Your task to perform on an android device: Open wifi settings Image 0: 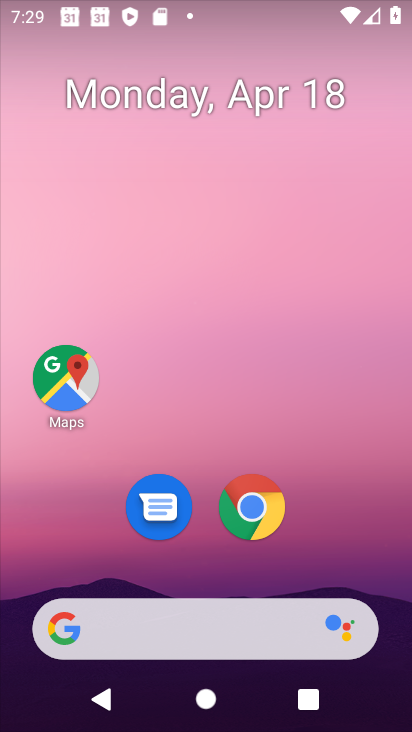
Step 0: drag from (5, 514) to (38, 475)
Your task to perform on an android device: Open wifi settings Image 1: 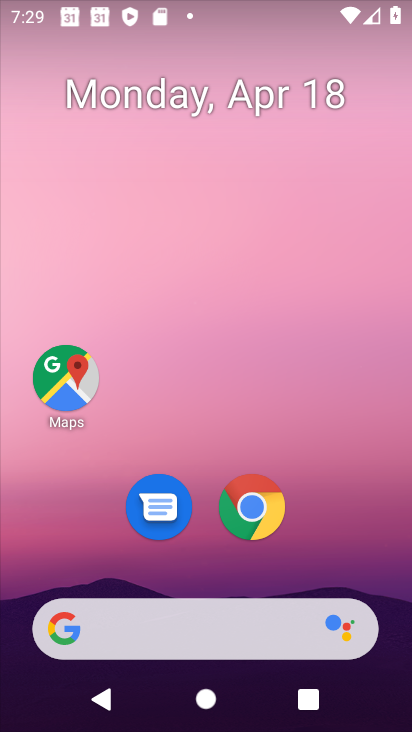
Step 1: drag from (1, 528) to (220, 25)
Your task to perform on an android device: Open wifi settings Image 2: 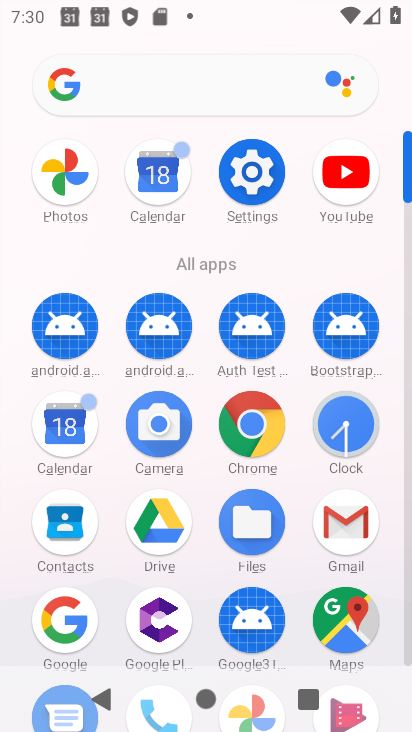
Step 2: click (269, 187)
Your task to perform on an android device: Open wifi settings Image 3: 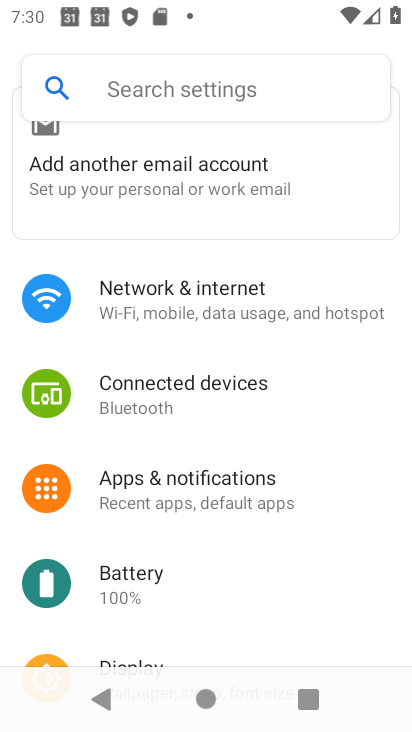
Step 3: click (161, 306)
Your task to perform on an android device: Open wifi settings Image 4: 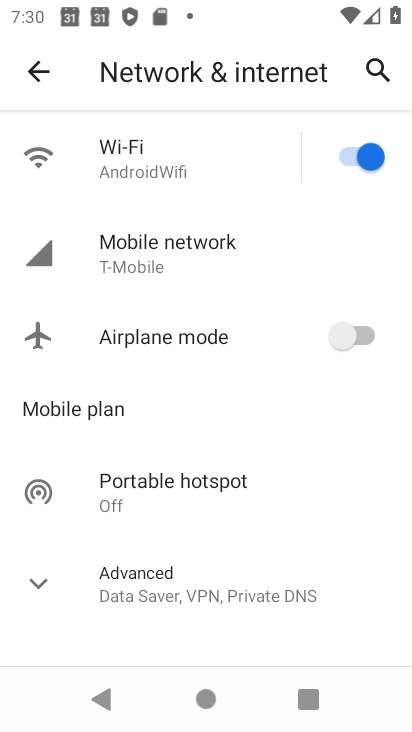
Step 4: click (162, 172)
Your task to perform on an android device: Open wifi settings Image 5: 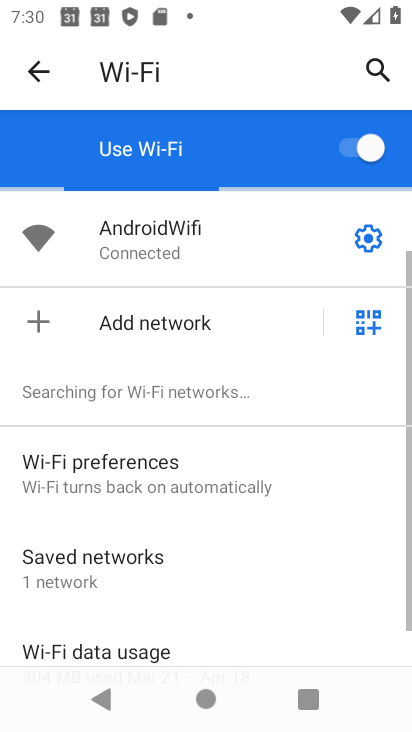
Step 5: task complete